Your task to perform on an android device: empty trash in the gmail app Image 0: 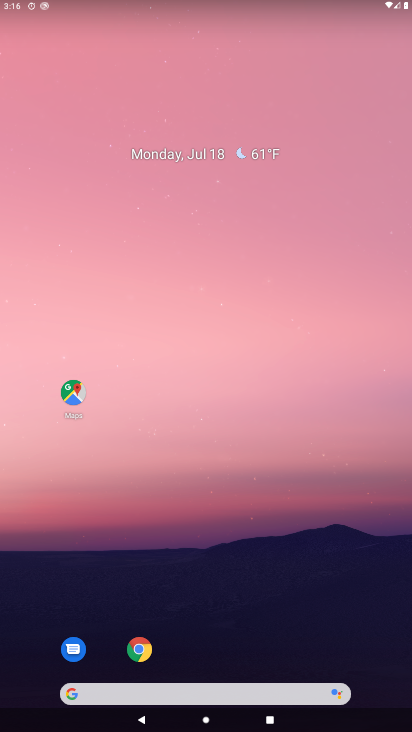
Step 0: drag from (45, 661) to (204, 335)
Your task to perform on an android device: empty trash in the gmail app Image 1: 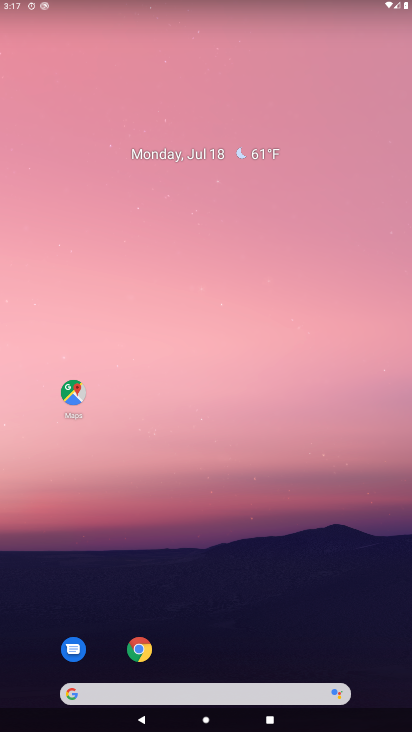
Step 1: drag from (43, 683) to (287, 12)
Your task to perform on an android device: empty trash in the gmail app Image 2: 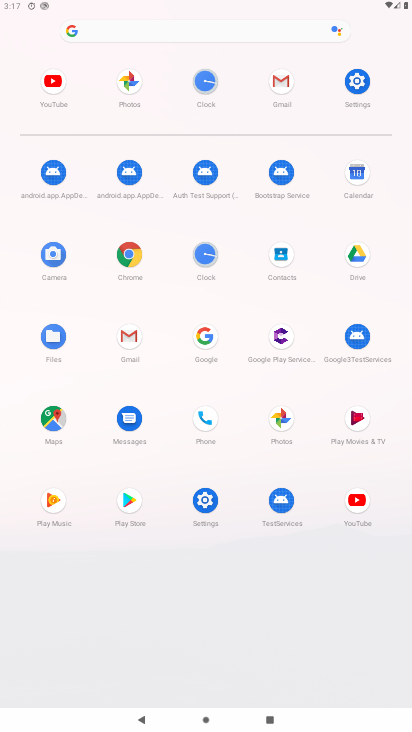
Step 2: click (127, 357)
Your task to perform on an android device: empty trash in the gmail app Image 3: 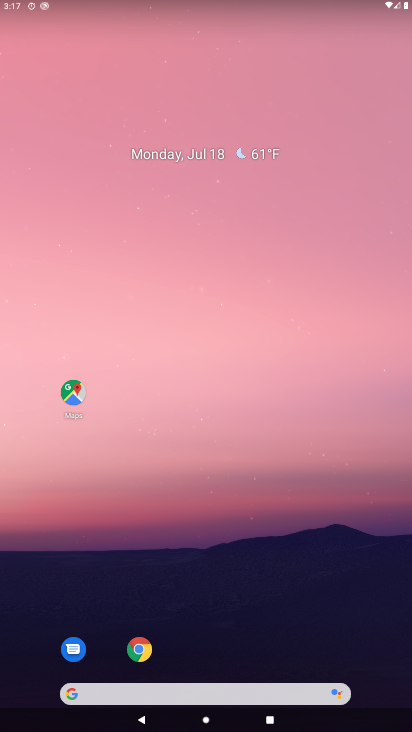
Step 3: drag from (48, 697) to (246, 297)
Your task to perform on an android device: empty trash in the gmail app Image 4: 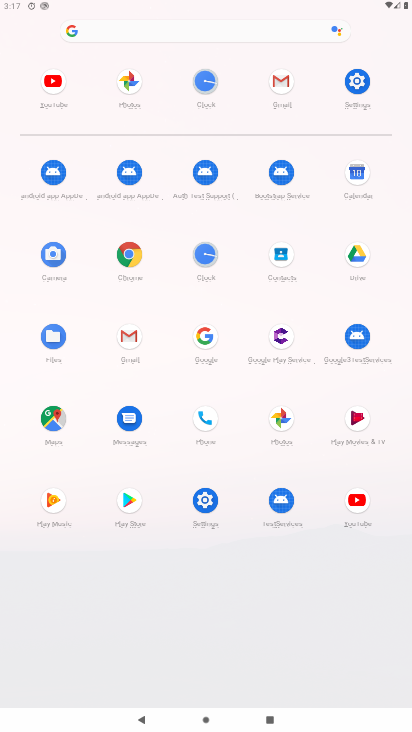
Step 4: click (141, 341)
Your task to perform on an android device: empty trash in the gmail app Image 5: 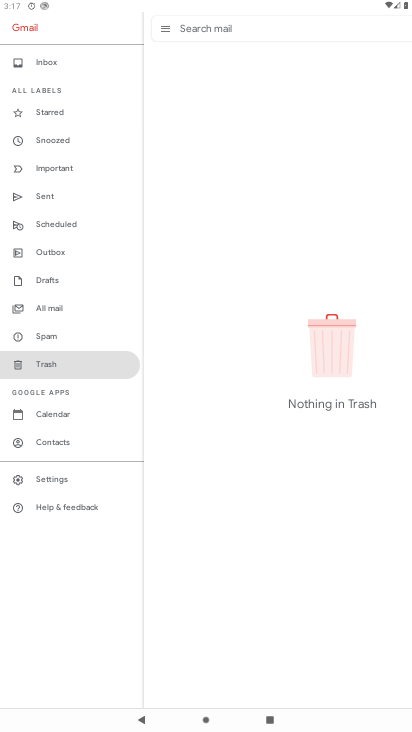
Step 5: click (52, 64)
Your task to perform on an android device: empty trash in the gmail app Image 6: 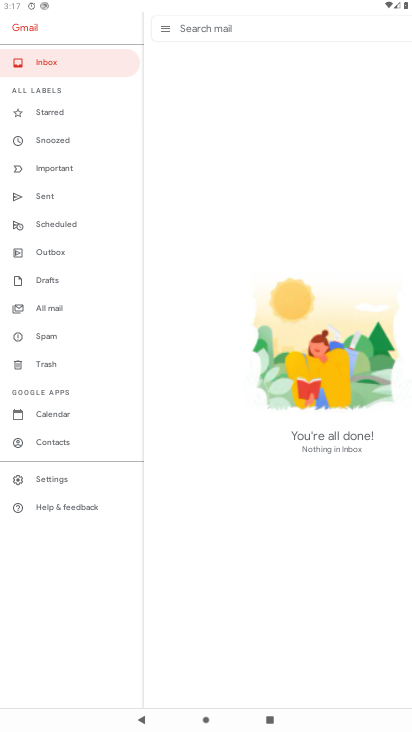
Step 6: click (51, 361)
Your task to perform on an android device: empty trash in the gmail app Image 7: 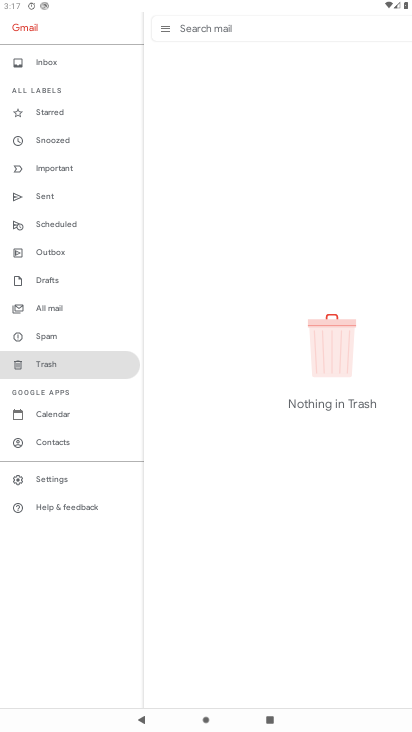
Step 7: task complete